Your task to perform on an android device: Is it going to rain today? Image 0: 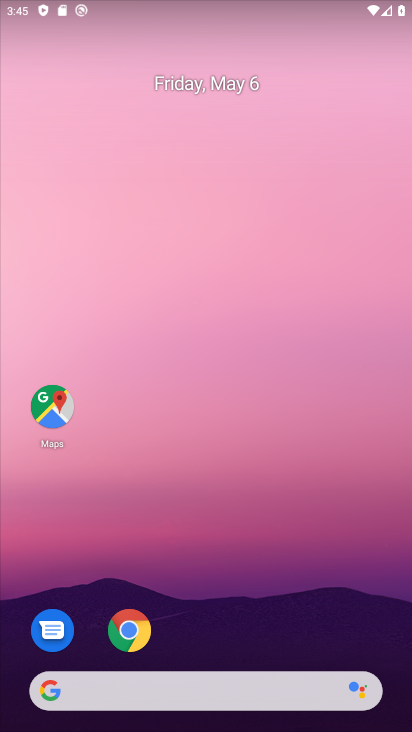
Step 0: drag from (189, 638) to (297, 69)
Your task to perform on an android device: Is it going to rain today? Image 1: 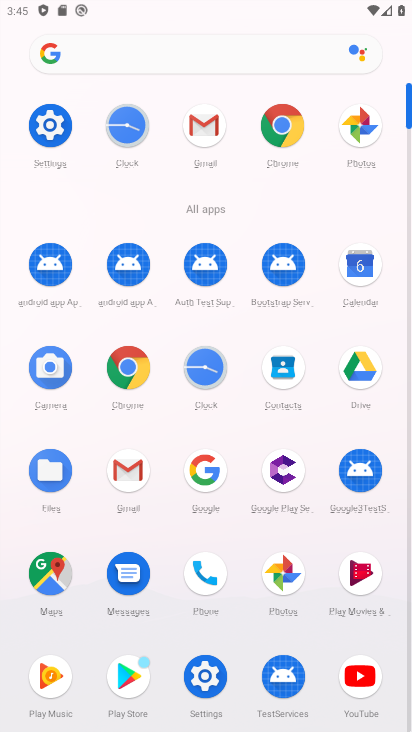
Step 1: click (128, 59)
Your task to perform on an android device: Is it going to rain today? Image 2: 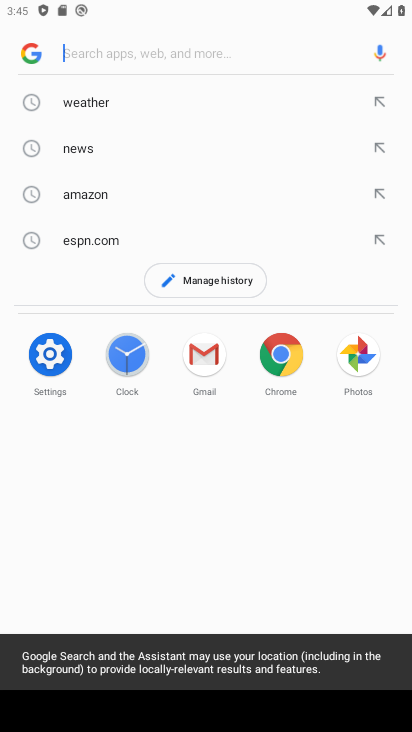
Step 2: click (121, 98)
Your task to perform on an android device: Is it going to rain today? Image 3: 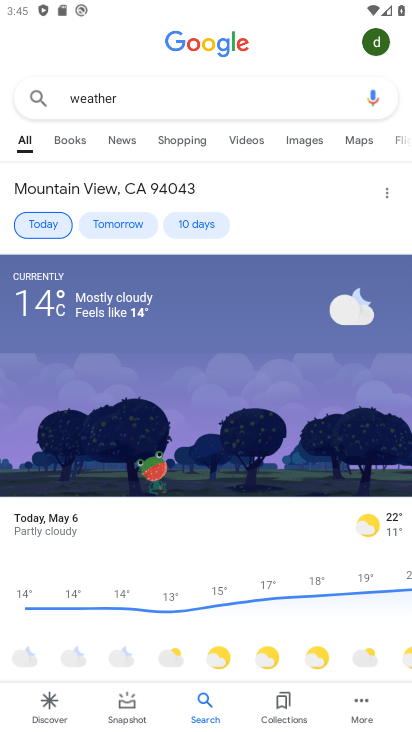
Step 3: task complete